Your task to perform on an android device: Search for acer predator on costco, select the first entry, add it to the cart, then select checkout. Image 0: 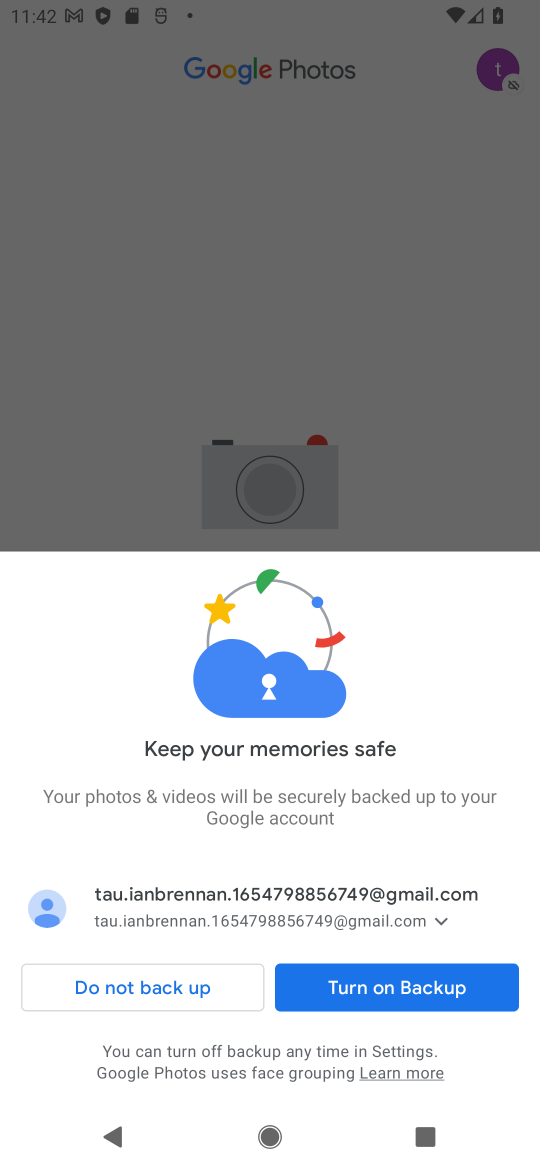
Step 0: press home button
Your task to perform on an android device: Search for acer predator on costco, select the first entry, add it to the cart, then select checkout. Image 1: 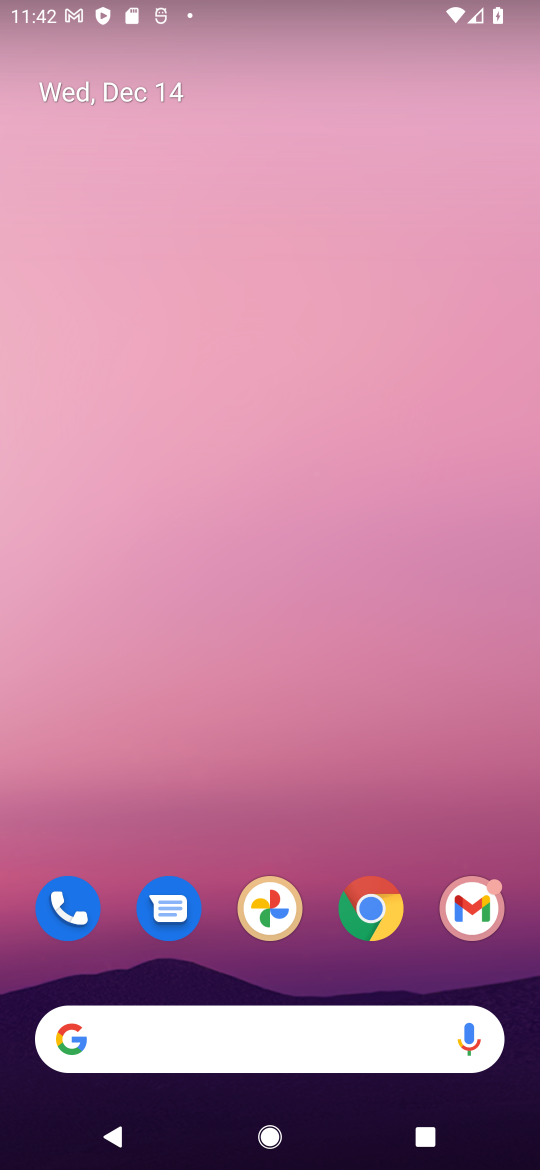
Step 1: click (361, 919)
Your task to perform on an android device: Search for acer predator on costco, select the first entry, add it to the cart, then select checkout. Image 2: 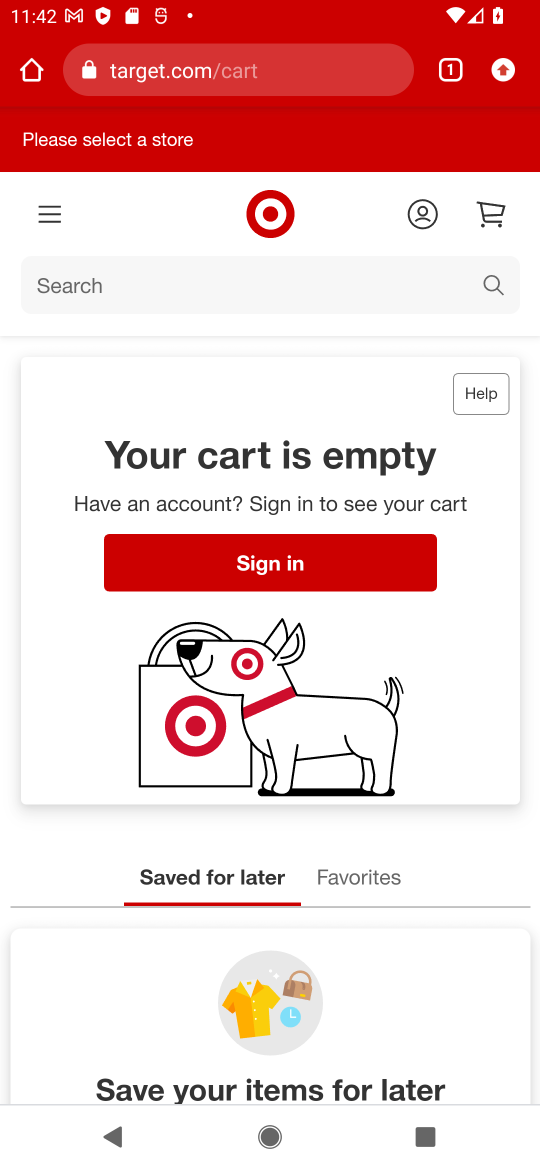
Step 2: click (190, 82)
Your task to perform on an android device: Search for acer predator on costco, select the first entry, add it to the cart, then select checkout. Image 3: 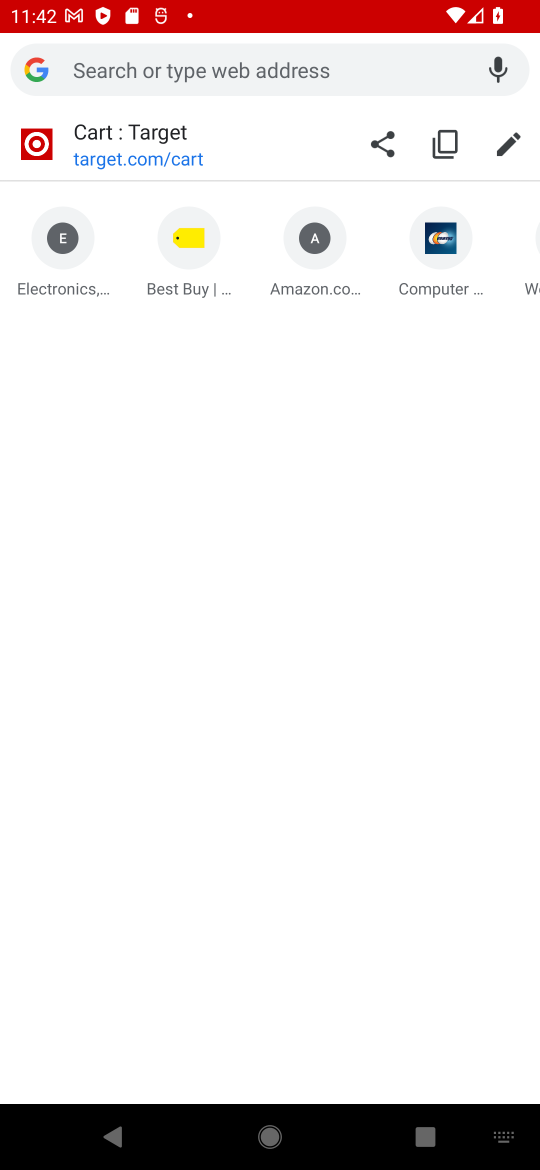
Step 3: type "costco.com"
Your task to perform on an android device: Search for acer predator on costco, select the first entry, add it to the cart, then select checkout. Image 4: 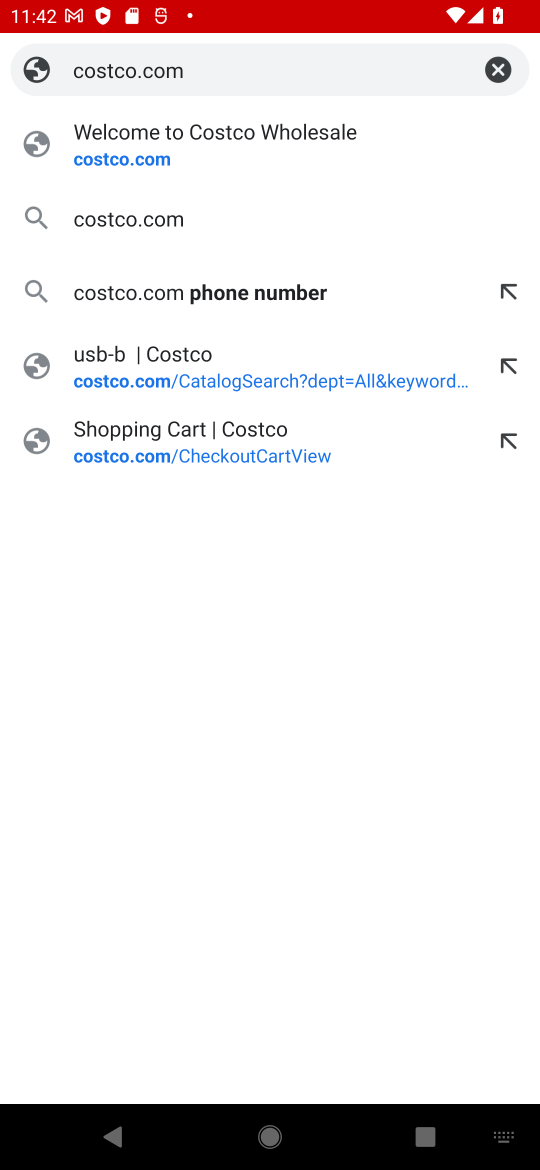
Step 4: click (150, 167)
Your task to perform on an android device: Search for acer predator on costco, select the first entry, add it to the cart, then select checkout. Image 5: 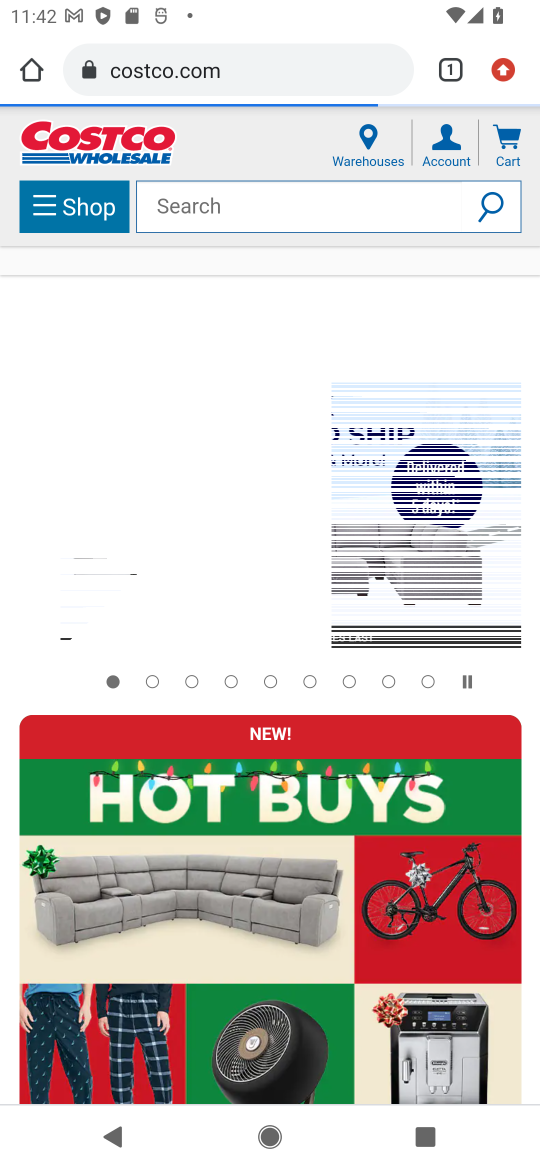
Step 5: click (171, 209)
Your task to perform on an android device: Search for acer predator on costco, select the first entry, add it to the cart, then select checkout. Image 6: 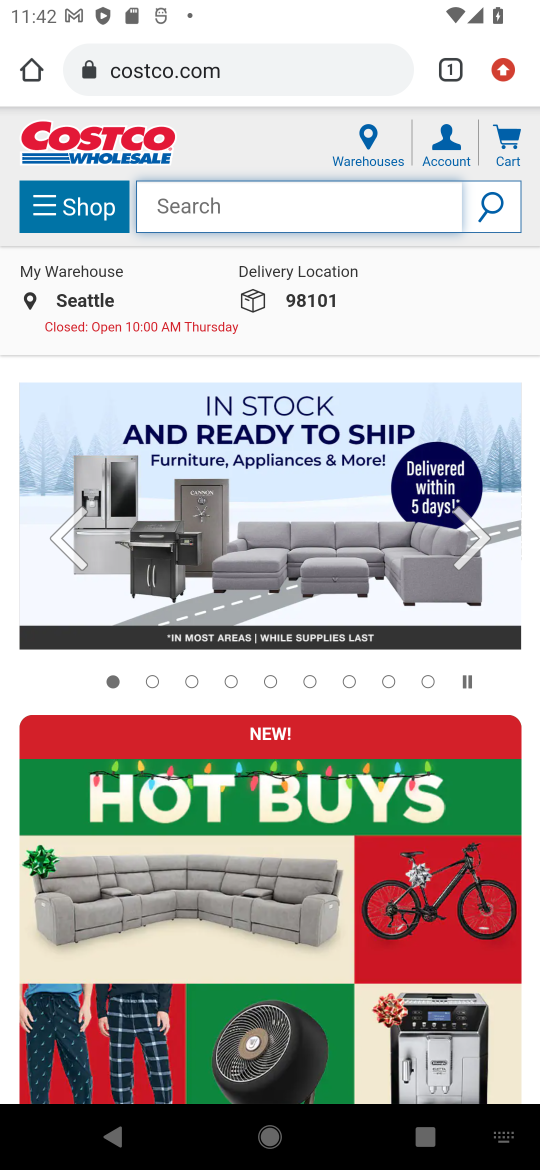
Step 6: type "acer predator"
Your task to perform on an android device: Search for acer predator on costco, select the first entry, add it to the cart, then select checkout. Image 7: 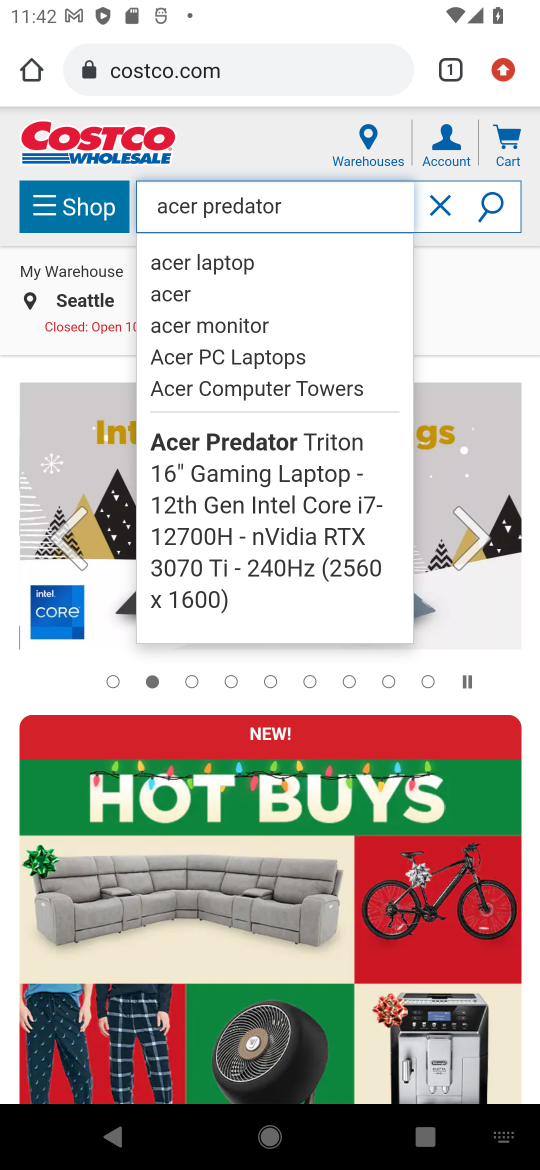
Step 7: click (478, 214)
Your task to perform on an android device: Search for acer predator on costco, select the first entry, add it to the cart, then select checkout. Image 8: 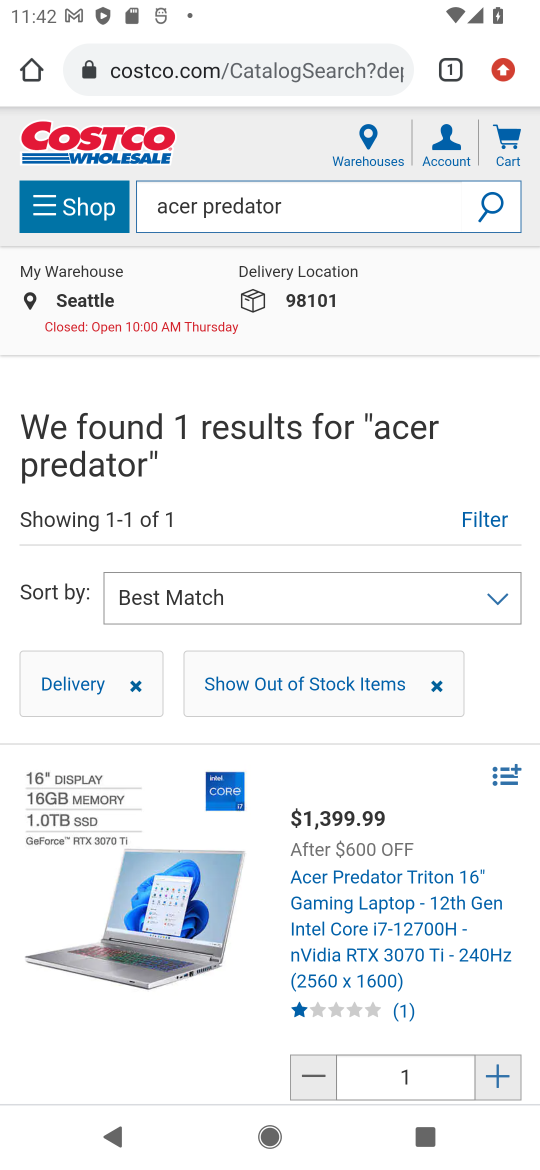
Step 8: drag from (200, 734) to (210, 456)
Your task to perform on an android device: Search for acer predator on costco, select the first entry, add it to the cart, then select checkout. Image 9: 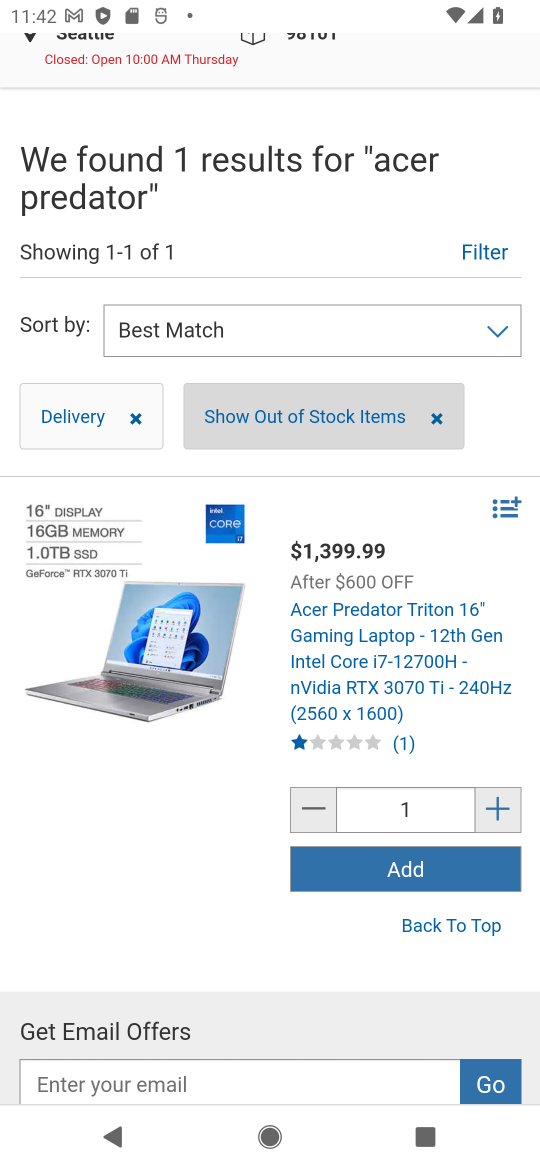
Step 9: click (393, 882)
Your task to perform on an android device: Search for acer predator on costco, select the first entry, add it to the cart, then select checkout. Image 10: 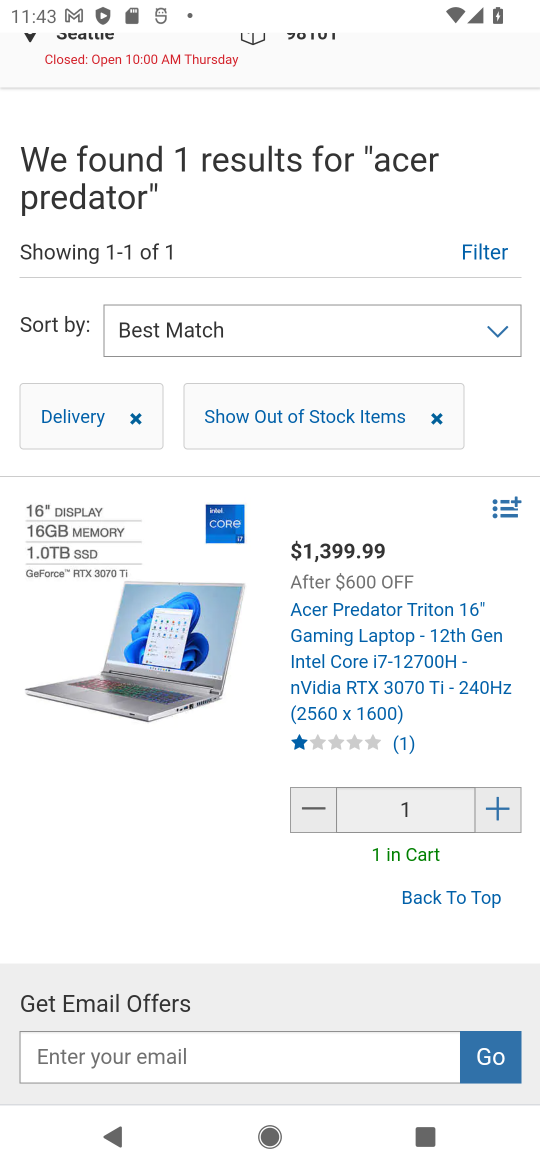
Step 10: drag from (384, 272) to (296, 609)
Your task to perform on an android device: Search for acer predator on costco, select the first entry, add it to the cart, then select checkout. Image 11: 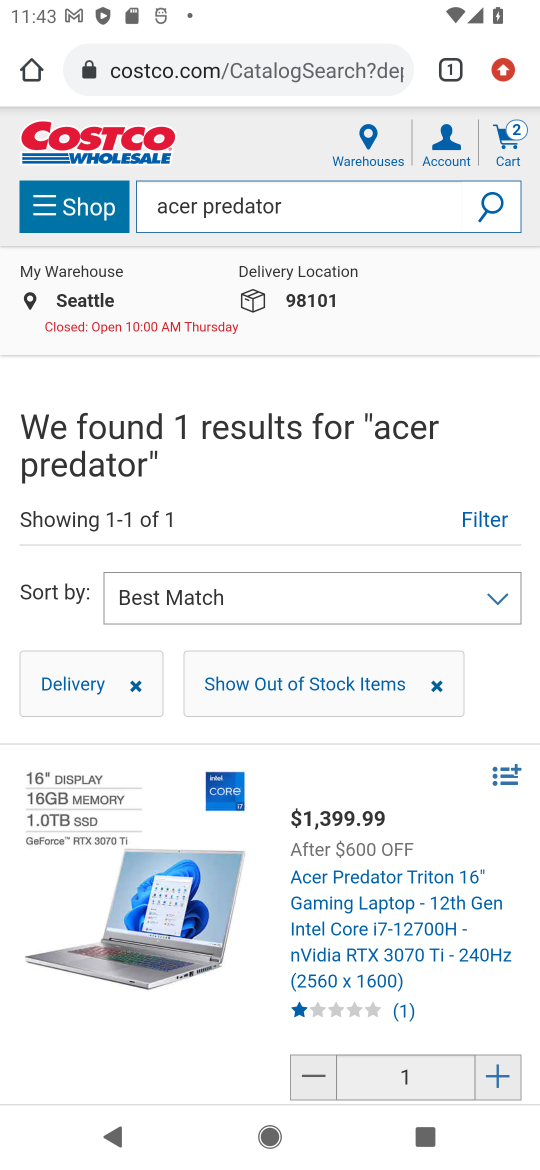
Step 11: click (502, 141)
Your task to perform on an android device: Search for acer predator on costco, select the first entry, add it to the cart, then select checkout. Image 12: 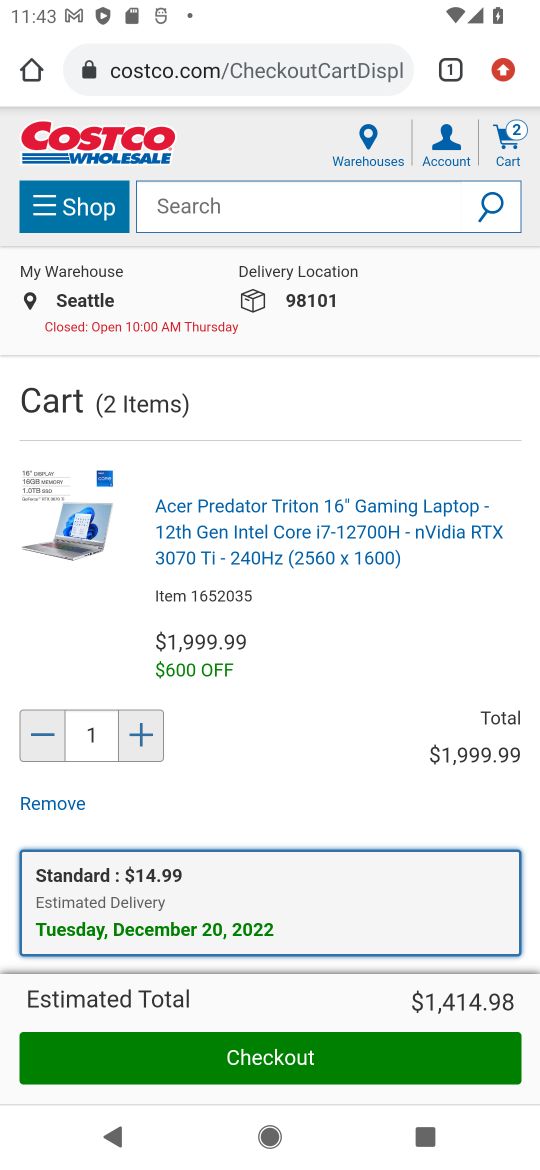
Step 12: click (248, 1047)
Your task to perform on an android device: Search for acer predator on costco, select the first entry, add it to the cart, then select checkout. Image 13: 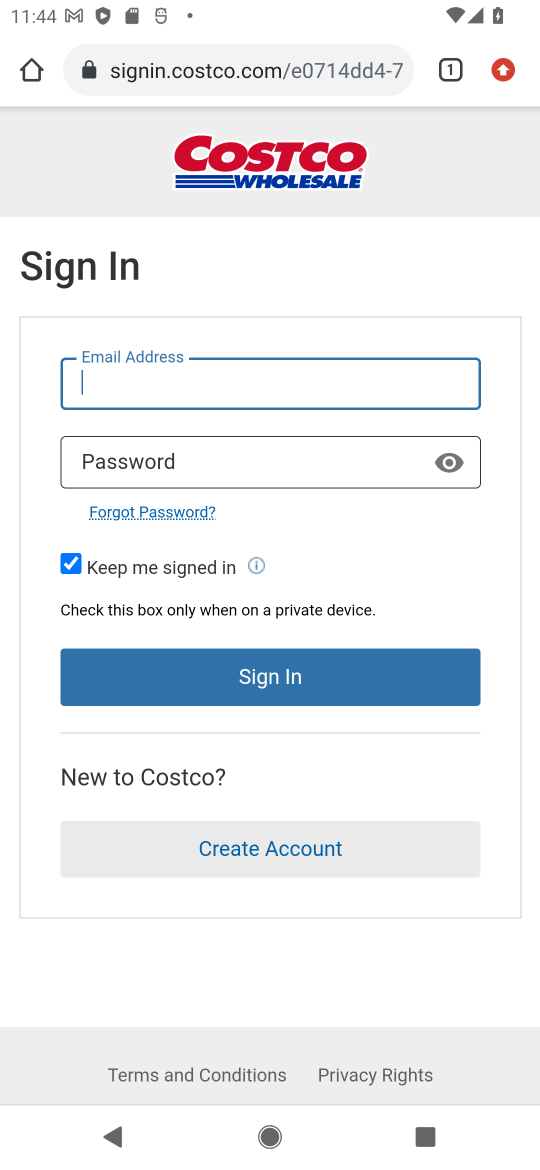
Step 13: task complete